Your task to perform on an android device: toggle priority inbox in the gmail app Image 0: 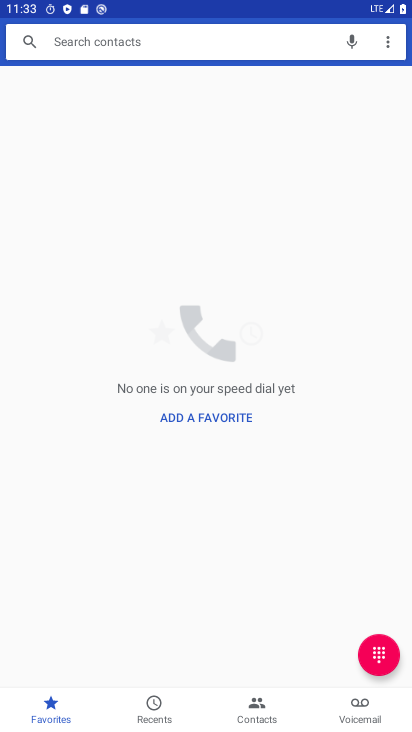
Step 0: press home button
Your task to perform on an android device: toggle priority inbox in the gmail app Image 1: 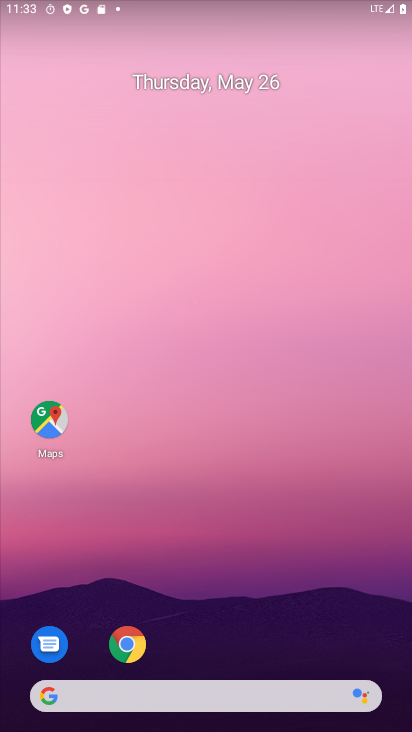
Step 1: drag from (123, 729) to (55, 98)
Your task to perform on an android device: toggle priority inbox in the gmail app Image 2: 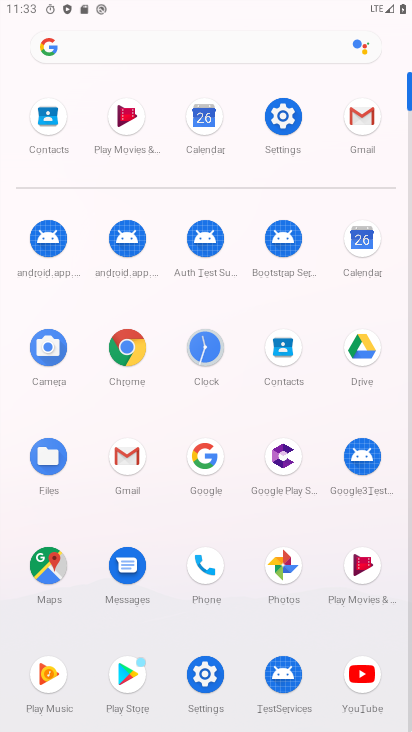
Step 2: click (112, 460)
Your task to perform on an android device: toggle priority inbox in the gmail app Image 3: 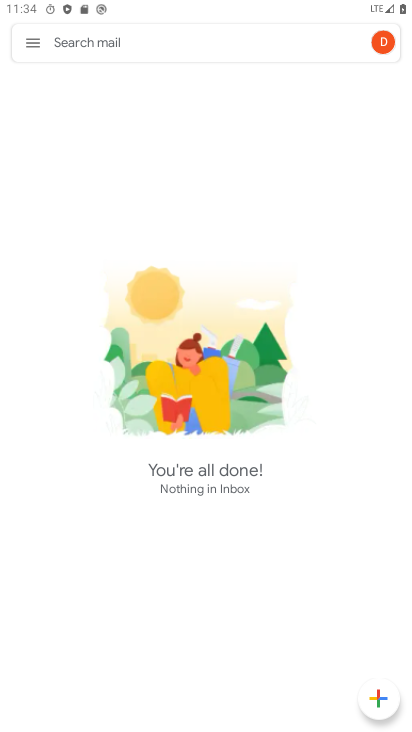
Step 3: click (36, 43)
Your task to perform on an android device: toggle priority inbox in the gmail app Image 4: 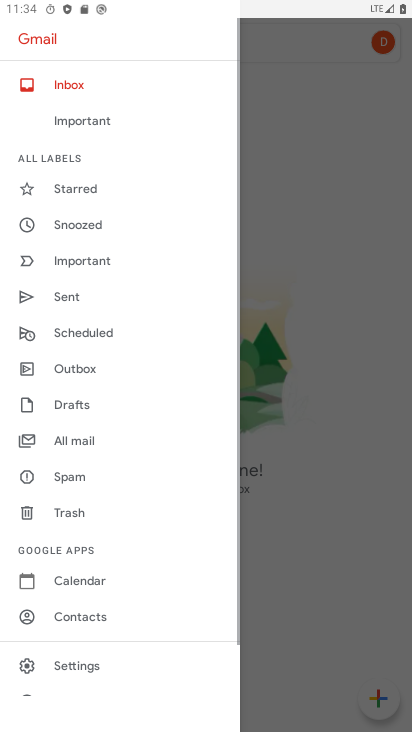
Step 4: click (61, 673)
Your task to perform on an android device: toggle priority inbox in the gmail app Image 5: 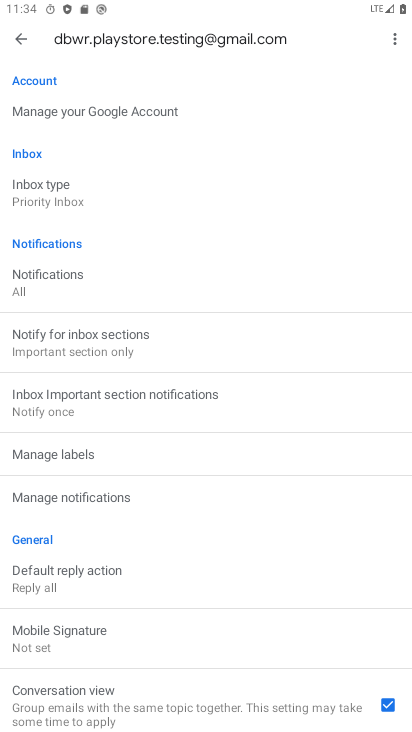
Step 5: click (49, 202)
Your task to perform on an android device: toggle priority inbox in the gmail app Image 6: 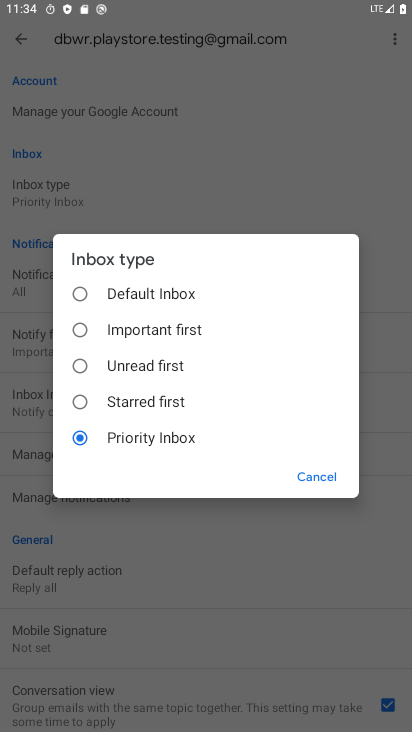
Step 6: task complete